Your task to perform on an android device: delete browsing data in the chrome app Image 0: 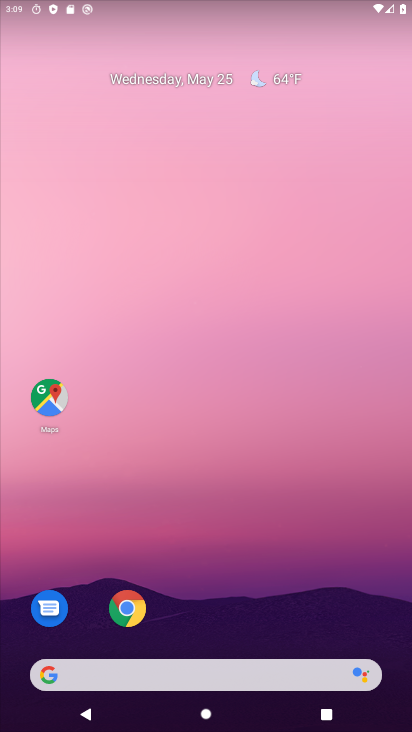
Step 0: click (124, 608)
Your task to perform on an android device: delete browsing data in the chrome app Image 1: 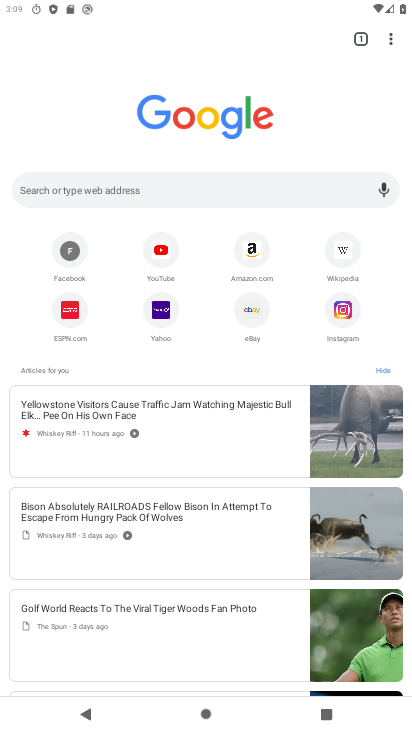
Step 1: task complete